Your task to perform on an android device: visit the assistant section in the google photos Image 0: 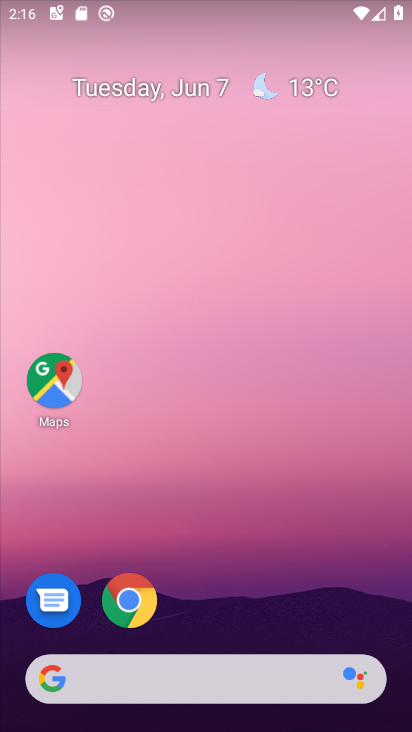
Step 0: drag from (227, 643) to (314, 28)
Your task to perform on an android device: visit the assistant section in the google photos Image 1: 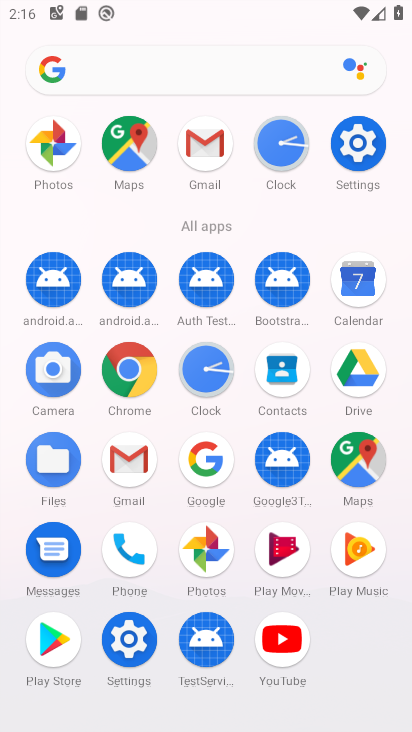
Step 1: click (207, 554)
Your task to perform on an android device: visit the assistant section in the google photos Image 2: 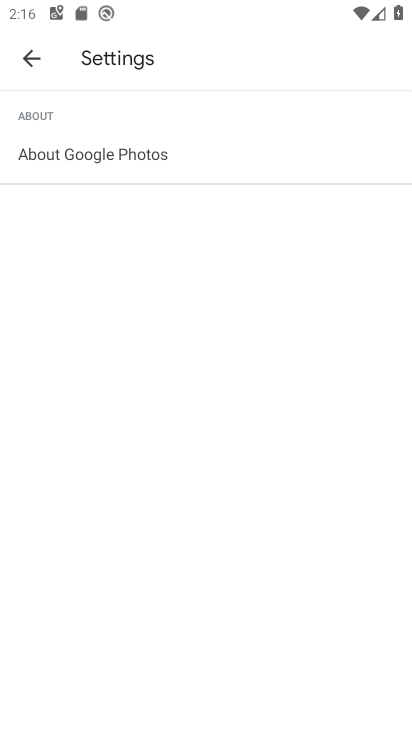
Step 2: click (34, 63)
Your task to perform on an android device: visit the assistant section in the google photos Image 3: 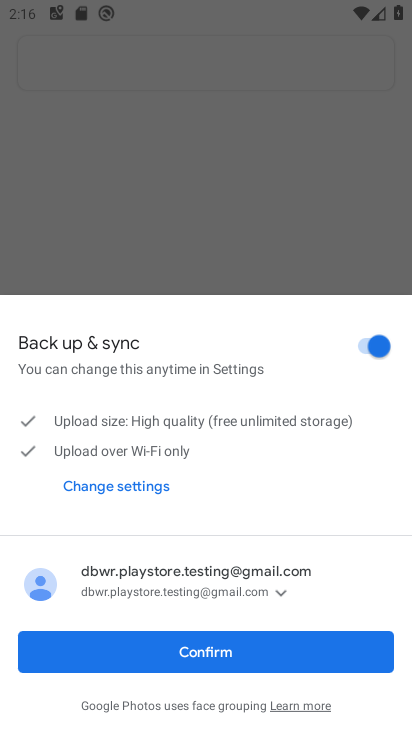
Step 3: click (244, 646)
Your task to perform on an android device: visit the assistant section in the google photos Image 4: 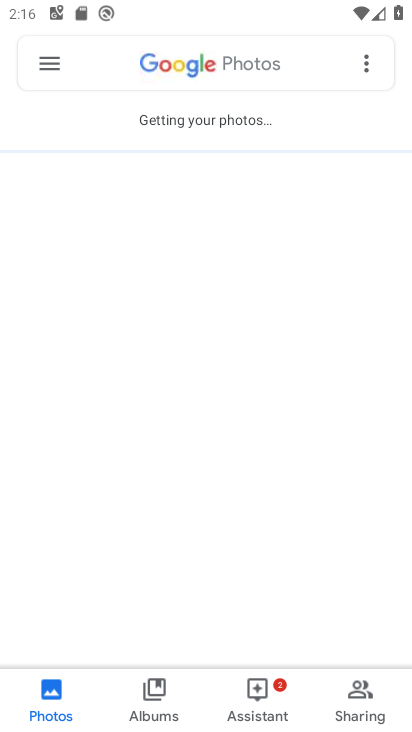
Step 4: click (266, 698)
Your task to perform on an android device: visit the assistant section in the google photos Image 5: 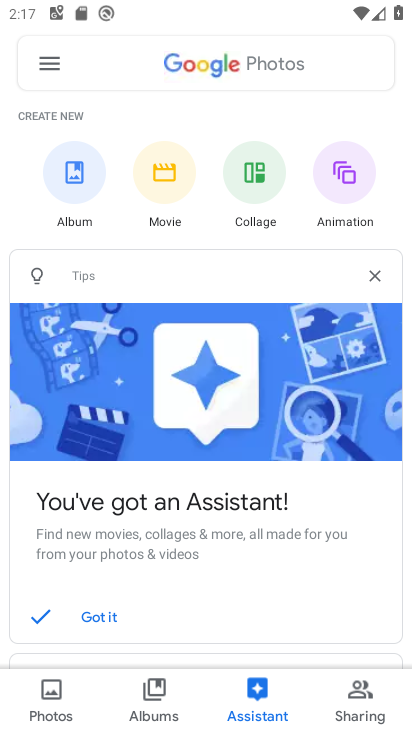
Step 5: task complete